Your task to perform on an android device: set default search engine in the chrome app Image 0: 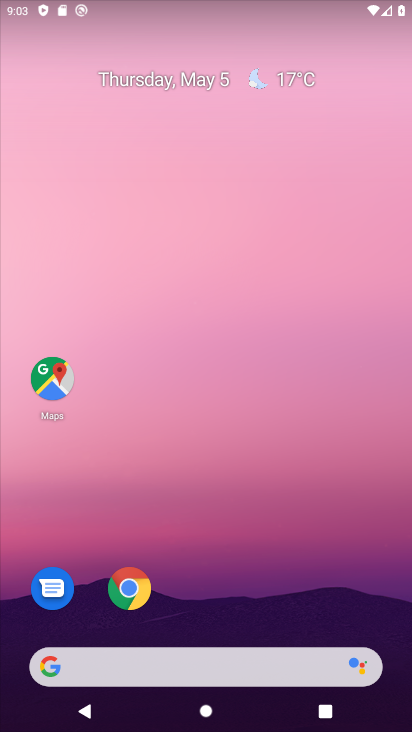
Step 0: drag from (276, 481) to (283, 263)
Your task to perform on an android device: set default search engine in the chrome app Image 1: 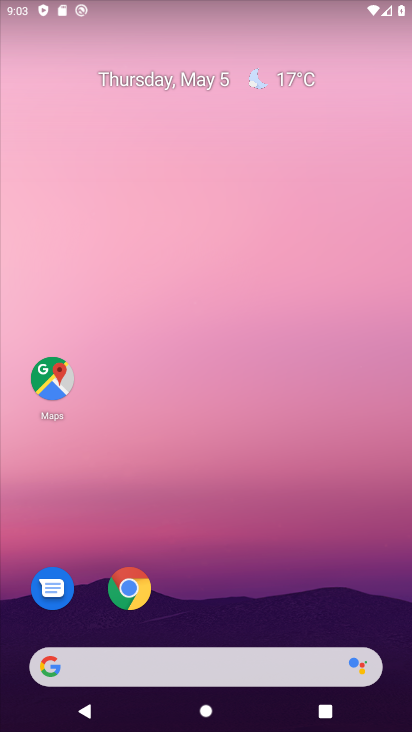
Step 1: drag from (227, 620) to (295, 287)
Your task to perform on an android device: set default search engine in the chrome app Image 2: 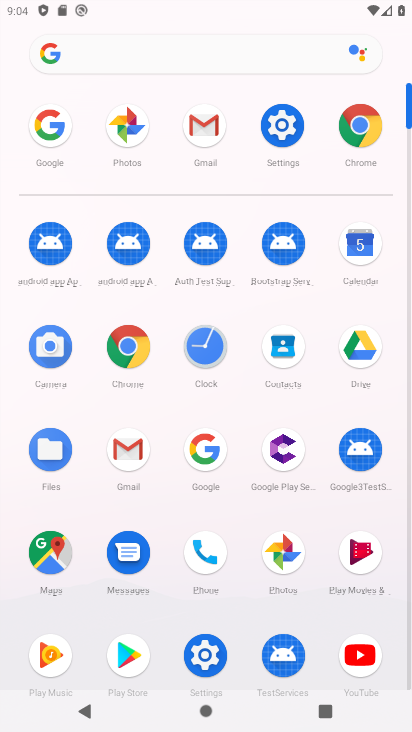
Step 2: click (130, 344)
Your task to perform on an android device: set default search engine in the chrome app Image 3: 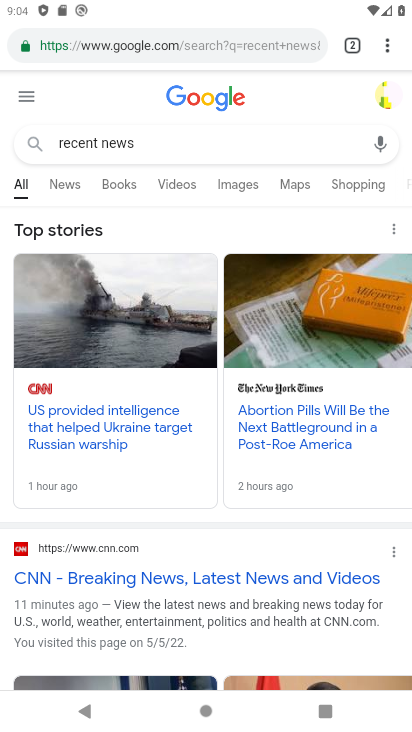
Step 3: click (385, 46)
Your task to perform on an android device: set default search engine in the chrome app Image 4: 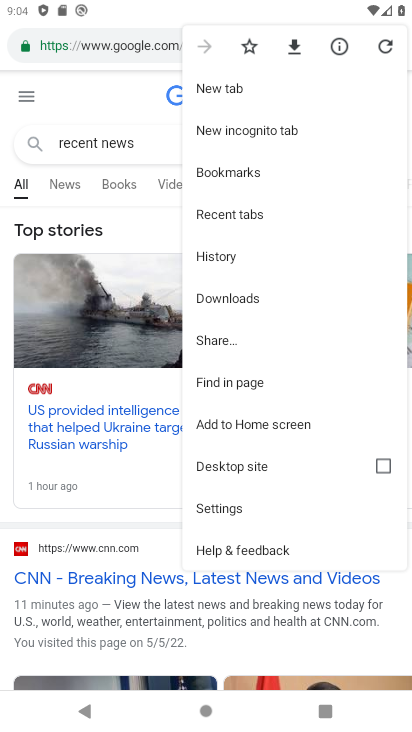
Step 4: click (235, 510)
Your task to perform on an android device: set default search engine in the chrome app Image 5: 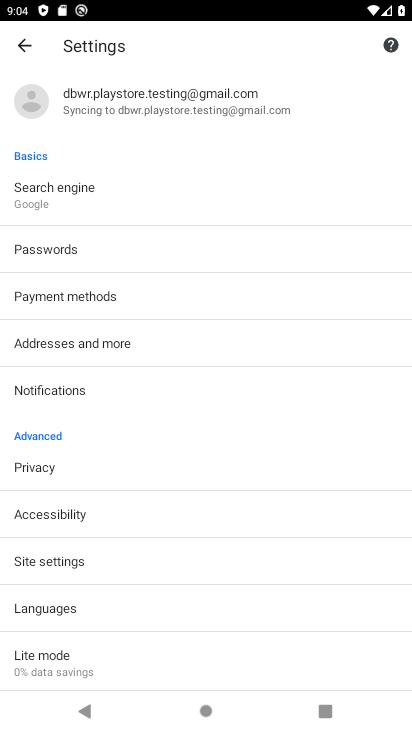
Step 5: click (52, 193)
Your task to perform on an android device: set default search engine in the chrome app Image 6: 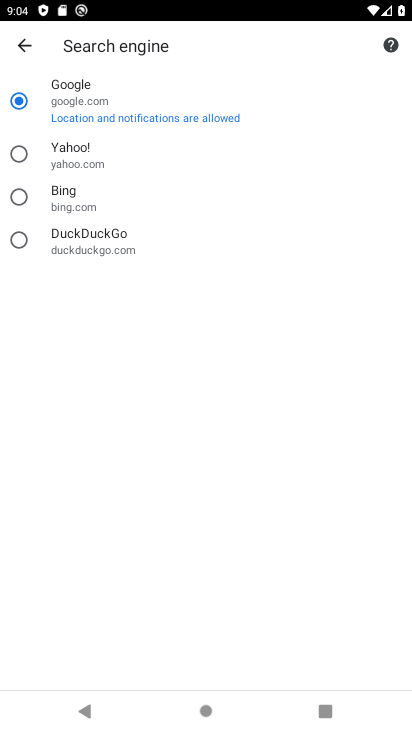
Step 6: click (71, 158)
Your task to perform on an android device: set default search engine in the chrome app Image 7: 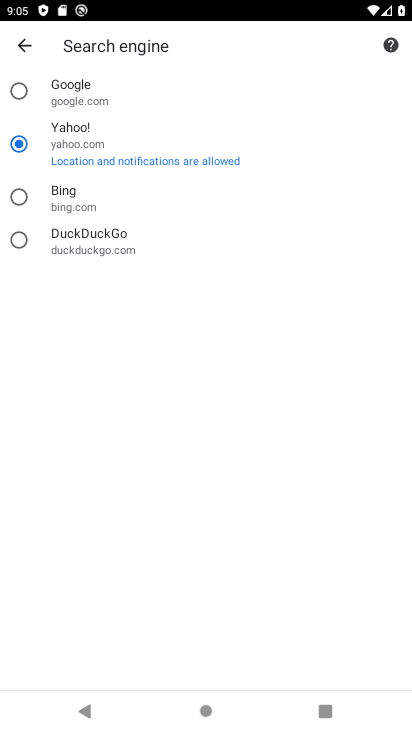
Step 7: task complete